Your task to perform on an android device: Search for vegetarian restaurants on Maps Image 0: 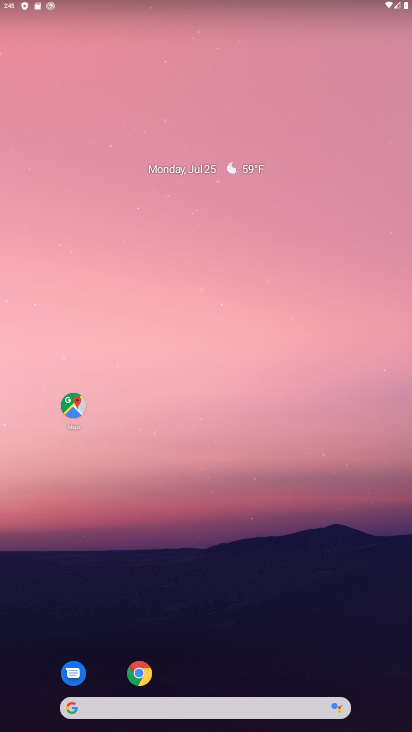
Step 0: click (74, 410)
Your task to perform on an android device: Search for vegetarian restaurants on Maps Image 1: 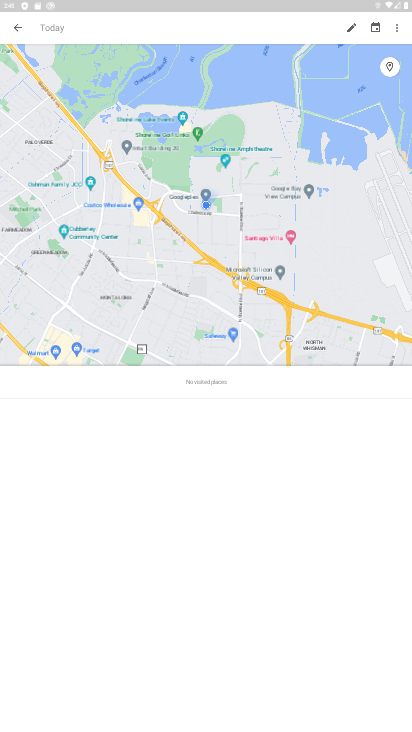
Step 1: click (14, 29)
Your task to perform on an android device: Search for vegetarian restaurants on Maps Image 2: 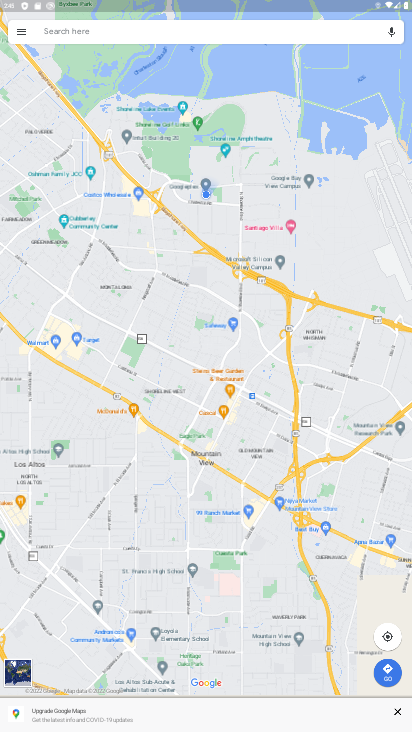
Step 2: click (130, 27)
Your task to perform on an android device: Search for vegetarian restaurants on Maps Image 3: 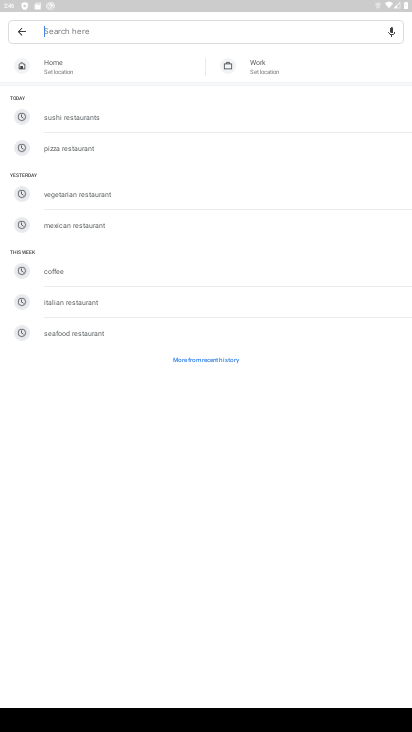
Step 3: type "vegetarian restaurants"
Your task to perform on an android device: Search for vegetarian restaurants on Maps Image 4: 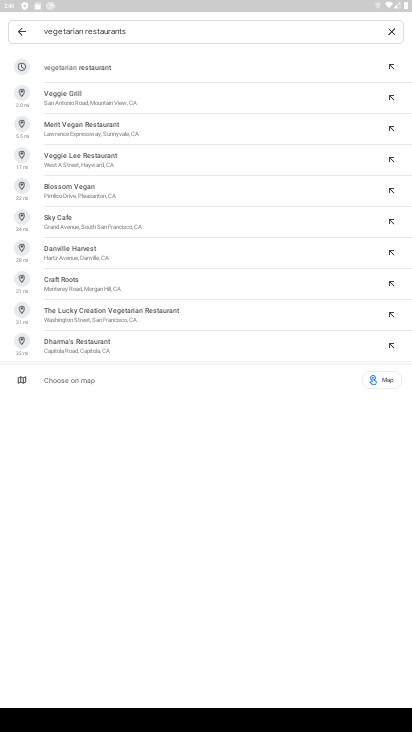
Step 4: click (138, 72)
Your task to perform on an android device: Search for vegetarian restaurants on Maps Image 5: 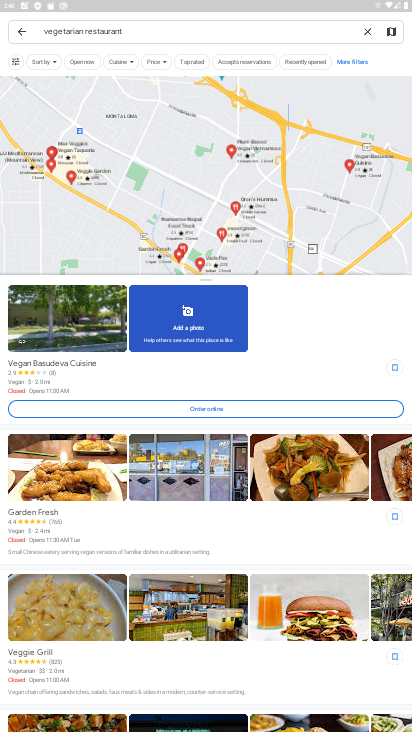
Step 5: task complete